Your task to perform on an android device: Open Yahoo.com Image 0: 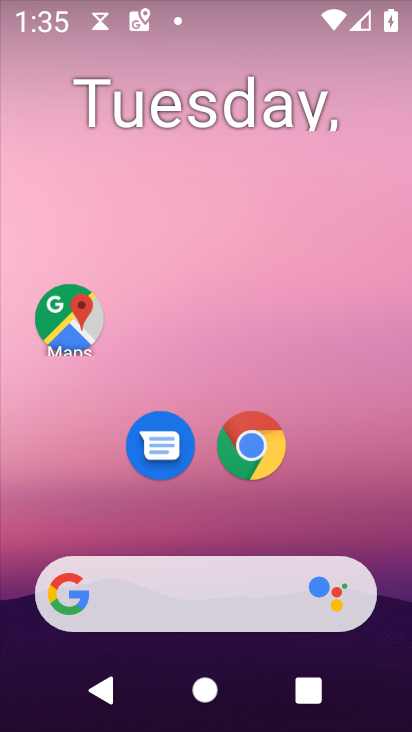
Step 0: drag from (331, 595) to (336, 40)
Your task to perform on an android device: Open Yahoo.com Image 1: 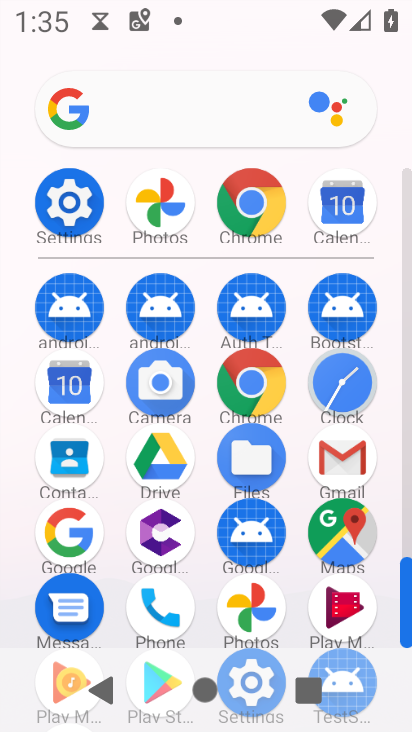
Step 1: click (267, 392)
Your task to perform on an android device: Open Yahoo.com Image 2: 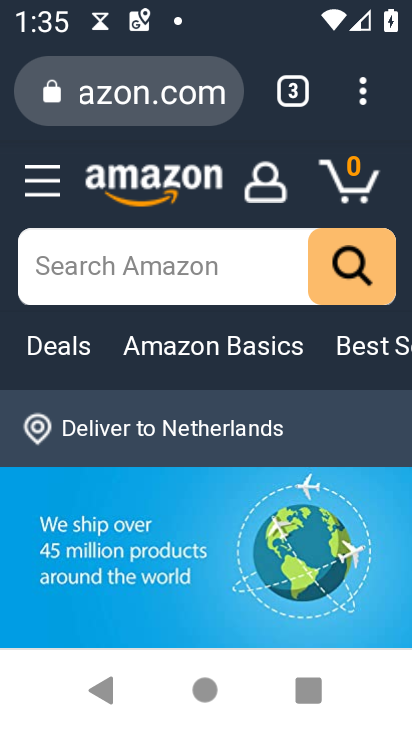
Step 2: click (159, 99)
Your task to perform on an android device: Open Yahoo.com Image 3: 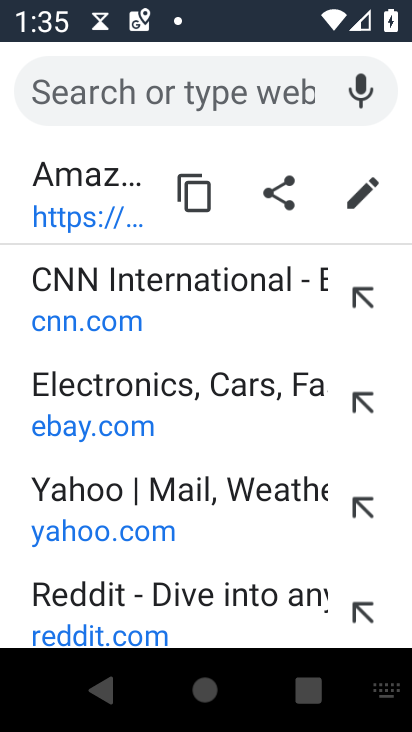
Step 3: type "yahoo.com"
Your task to perform on an android device: Open Yahoo.com Image 4: 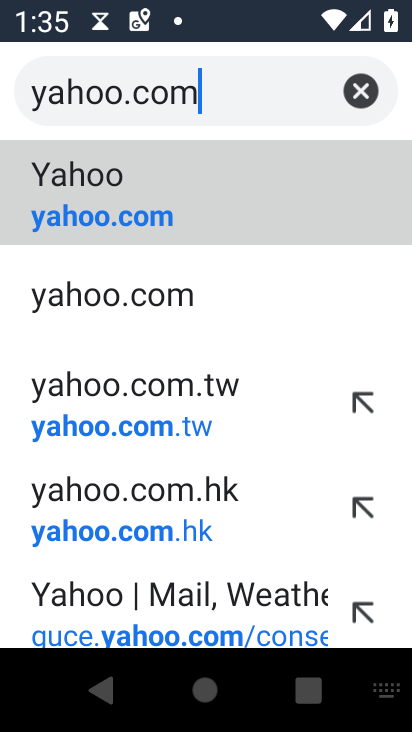
Step 4: click (322, 242)
Your task to perform on an android device: Open Yahoo.com Image 5: 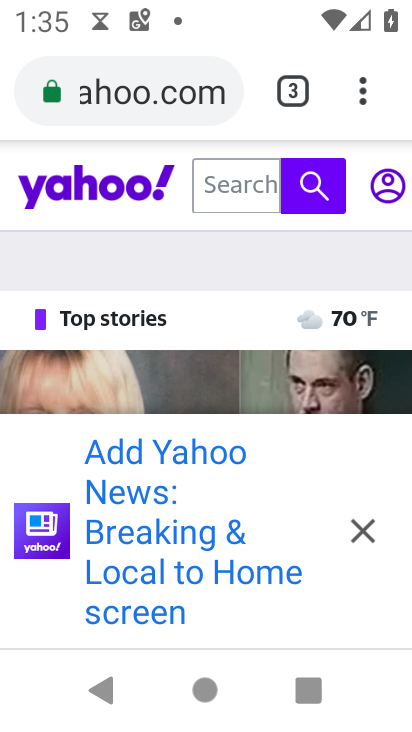
Step 5: task complete